Your task to perform on an android device: change text size in settings app Image 0: 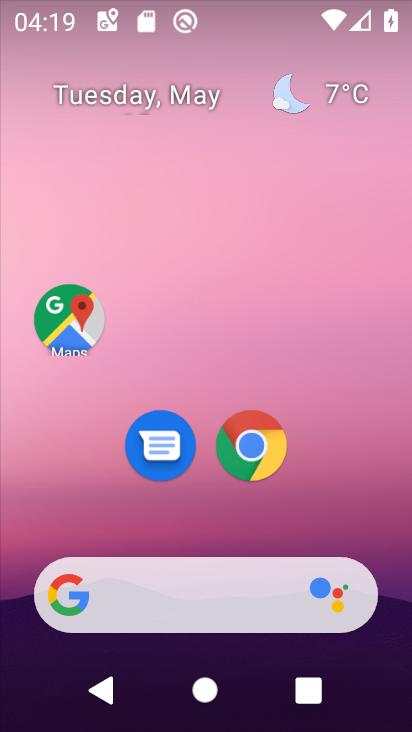
Step 0: drag from (231, 545) to (284, 69)
Your task to perform on an android device: change text size in settings app Image 1: 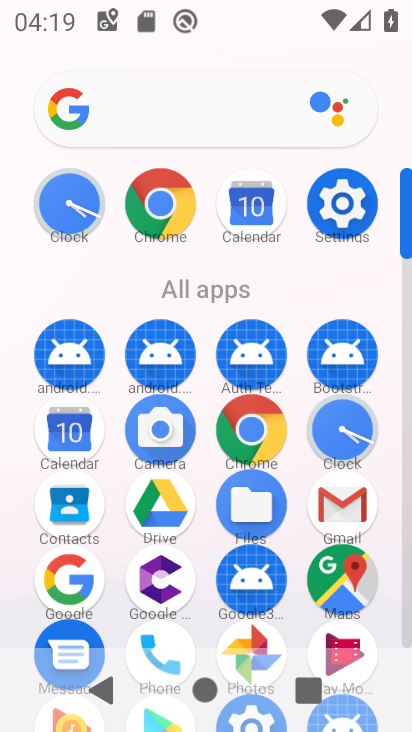
Step 1: click (338, 215)
Your task to perform on an android device: change text size in settings app Image 2: 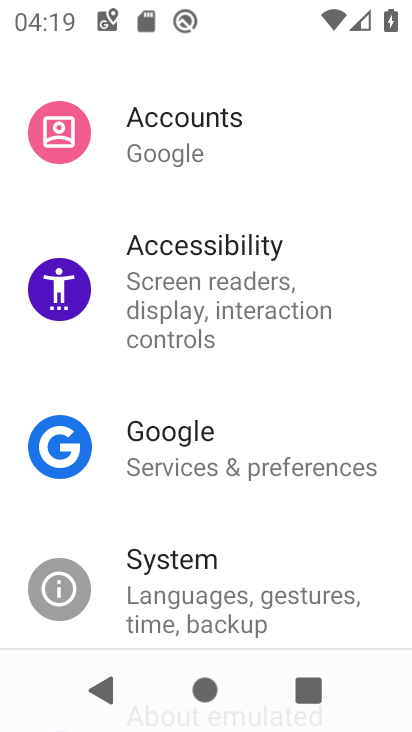
Step 2: drag from (239, 245) to (243, 630)
Your task to perform on an android device: change text size in settings app Image 3: 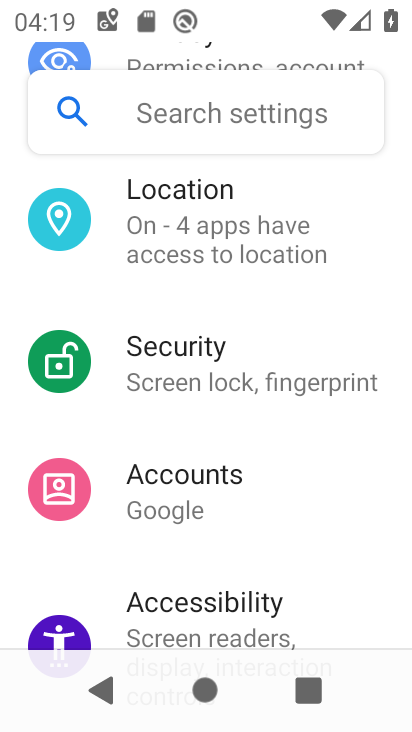
Step 3: drag from (241, 293) to (248, 617)
Your task to perform on an android device: change text size in settings app Image 4: 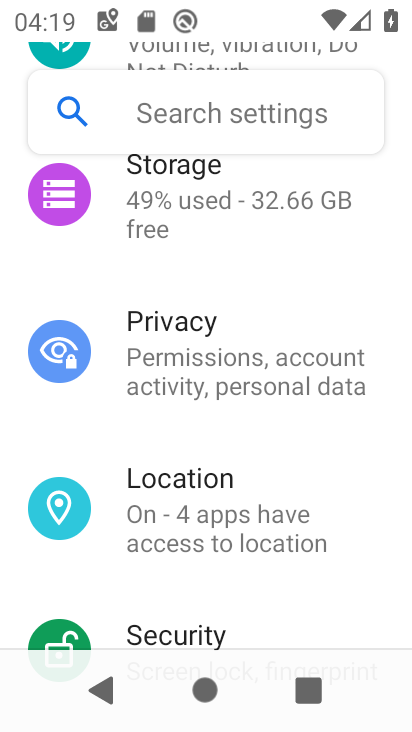
Step 4: drag from (273, 297) to (267, 716)
Your task to perform on an android device: change text size in settings app Image 5: 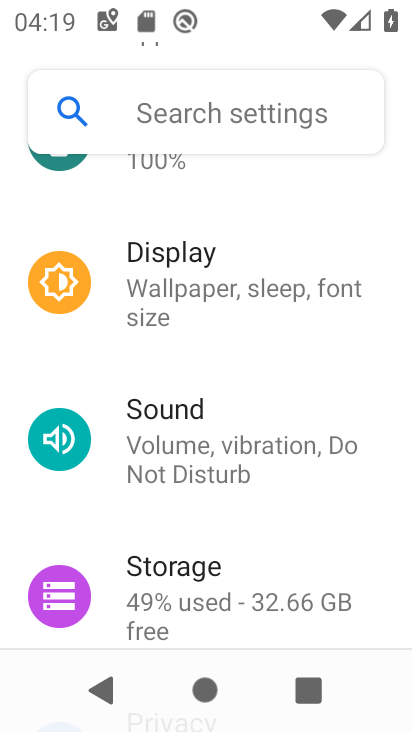
Step 5: click (221, 307)
Your task to perform on an android device: change text size in settings app Image 6: 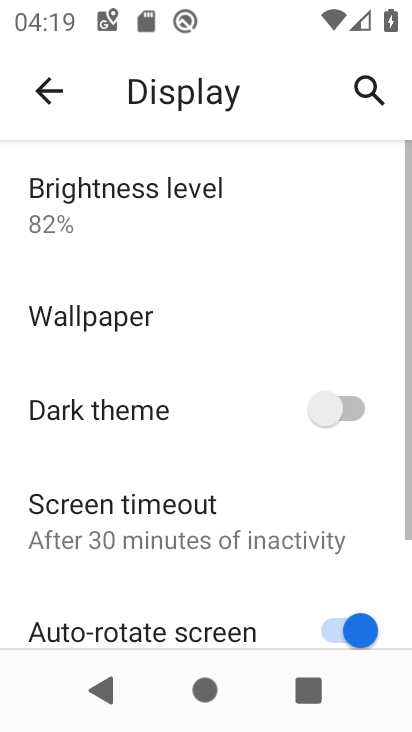
Step 6: drag from (214, 519) to (266, 200)
Your task to perform on an android device: change text size in settings app Image 7: 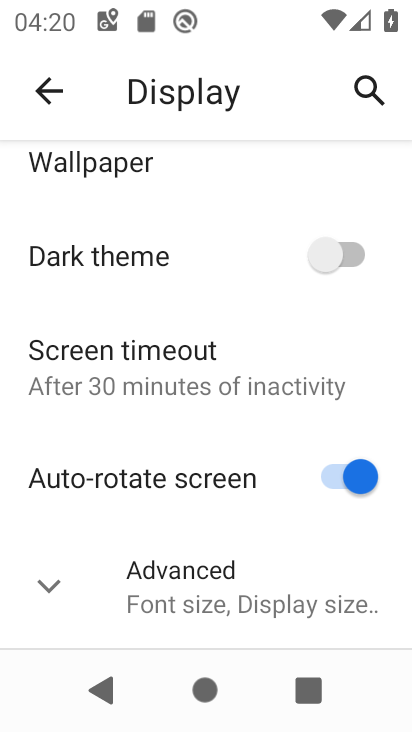
Step 7: click (208, 587)
Your task to perform on an android device: change text size in settings app Image 8: 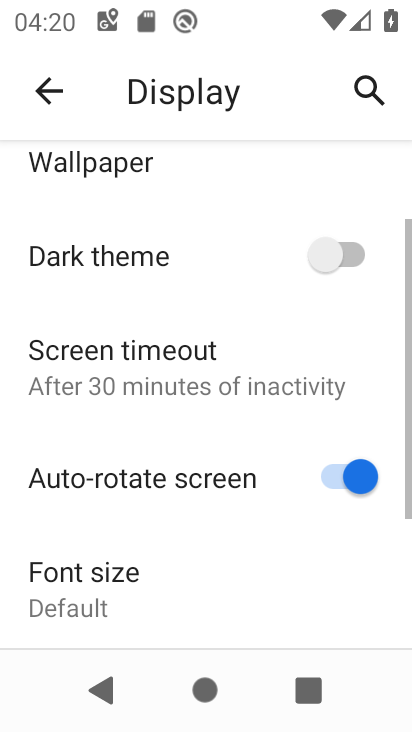
Step 8: drag from (205, 589) to (243, 395)
Your task to perform on an android device: change text size in settings app Image 9: 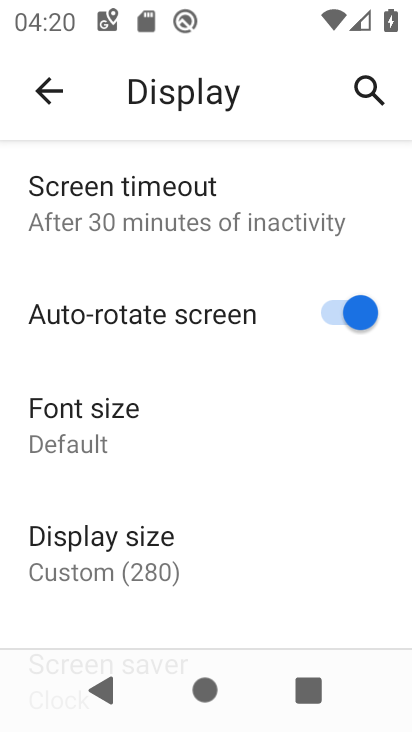
Step 9: click (116, 432)
Your task to perform on an android device: change text size in settings app Image 10: 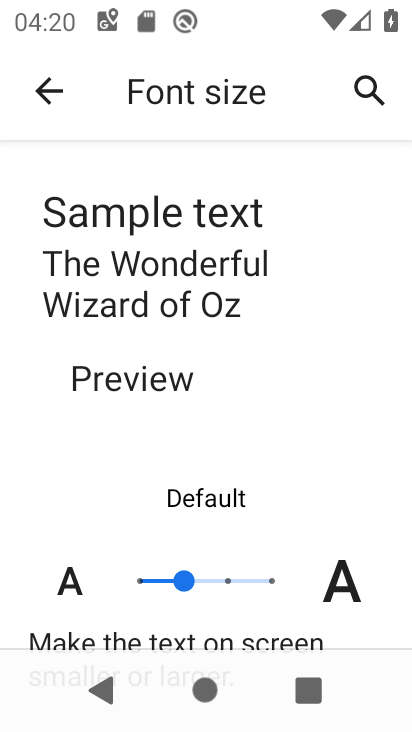
Step 10: click (143, 579)
Your task to perform on an android device: change text size in settings app Image 11: 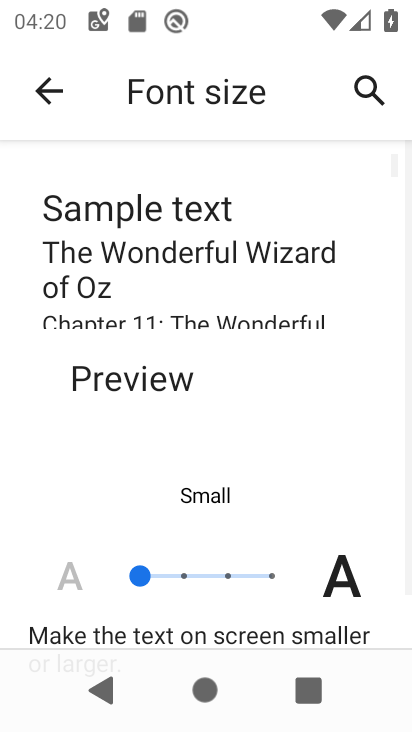
Step 11: task complete